Your task to perform on an android device: allow cookies in the chrome app Image 0: 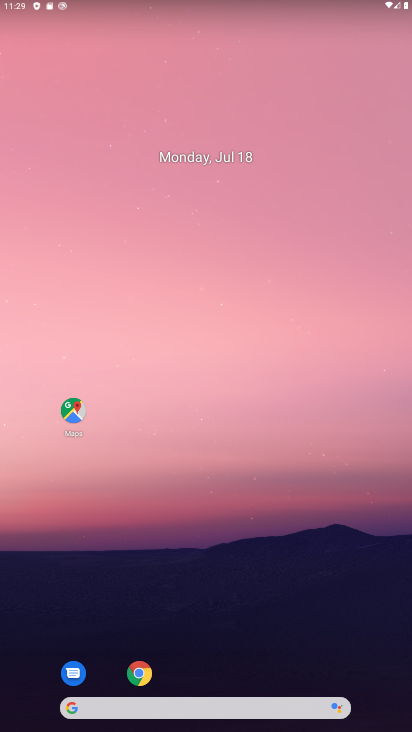
Step 0: drag from (190, 668) to (154, 139)
Your task to perform on an android device: allow cookies in the chrome app Image 1: 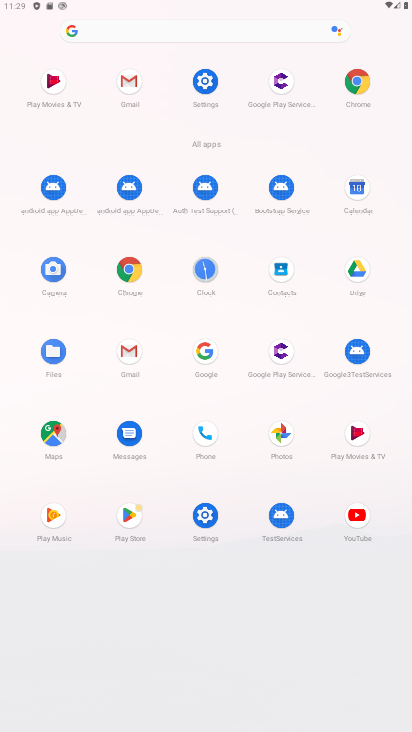
Step 1: click (369, 84)
Your task to perform on an android device: allow cookies in the chrome app Image 2: 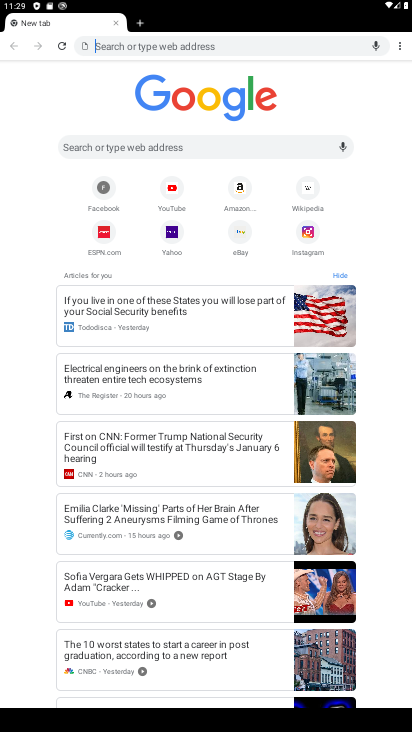
Step 2: click (399, 43)
Your task to perform on an android device: allow cookies in the chrome app Image 3: 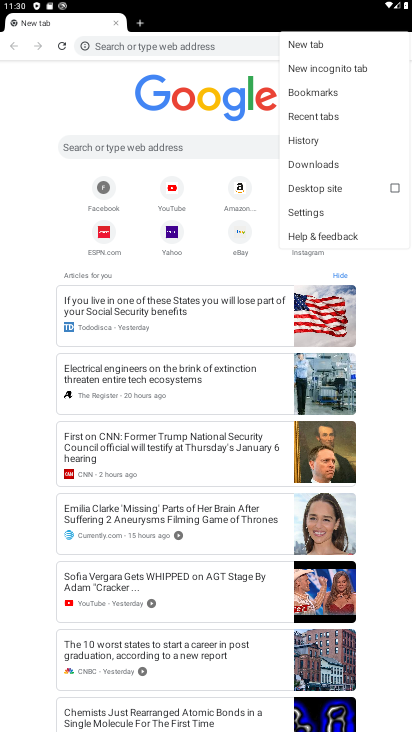
Step 3: click (319, 213)
Your task to perform on an android device: allow cookies in the chrome app Image 4: 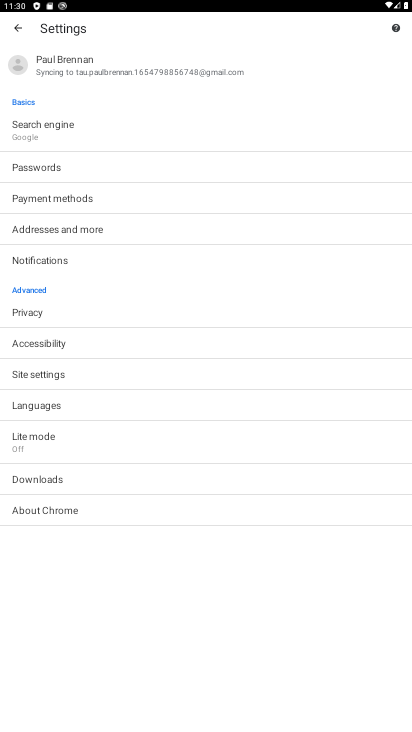
Step 4: click (114, 368)
Your task to perform on an android device: allow cookies in the chrome app Image 5: 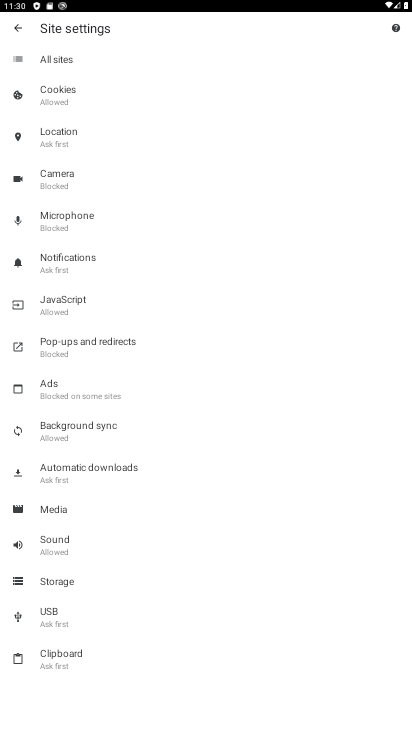
Step 5: task complete